Your task to perform on an android device: Open display settings Image 0: 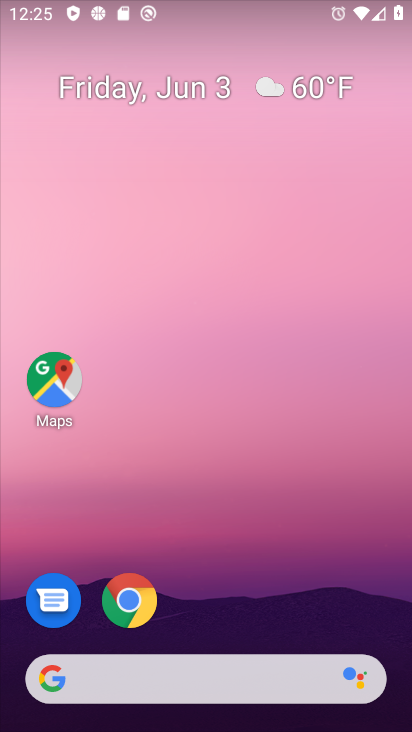
Step 0: drag from (287, 539) to (243, 232)
Your task to perform on an android device: Open display settings Image 1: 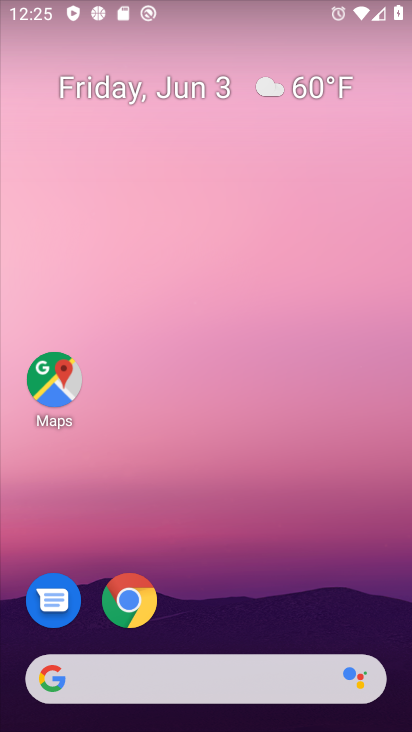
Step 1: drag from (292, 542) to (218, 148)
Your task to perform on an android device: Open display settings Image 2: 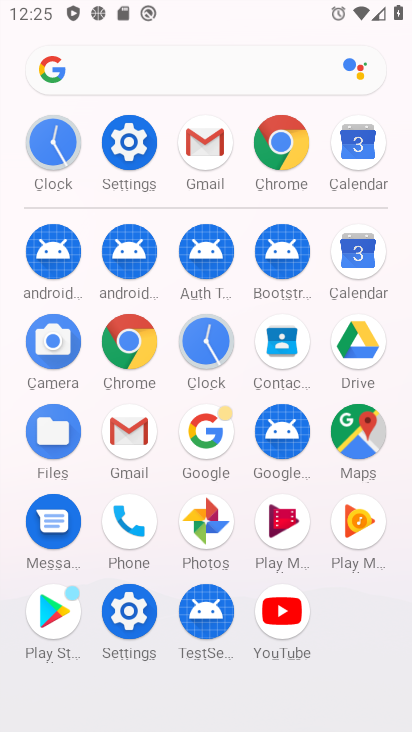
Step 2: click (124, 136)
Your task to perform on an android device: Open display settings Image 3: 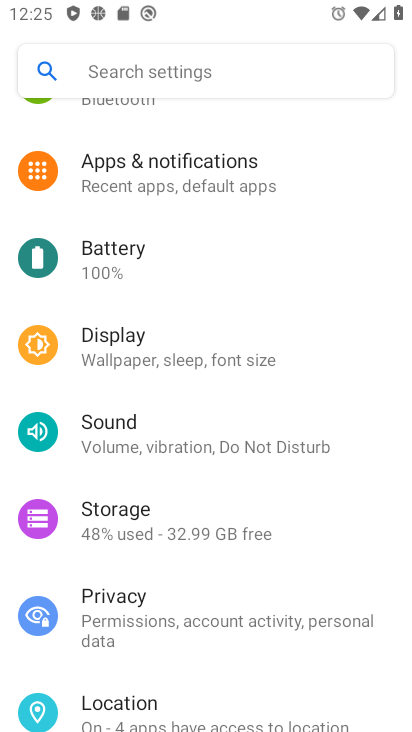
Step 3: drag from (195, 174) to (194, 655)
Your task to perform on an android device: Open display settings Image 4: 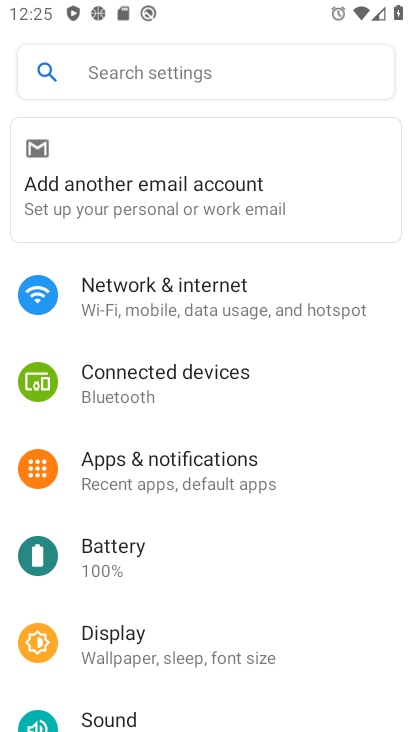
Step 4: click (170, 641)
Your task to perform on an android device: Open display settings Image 5: 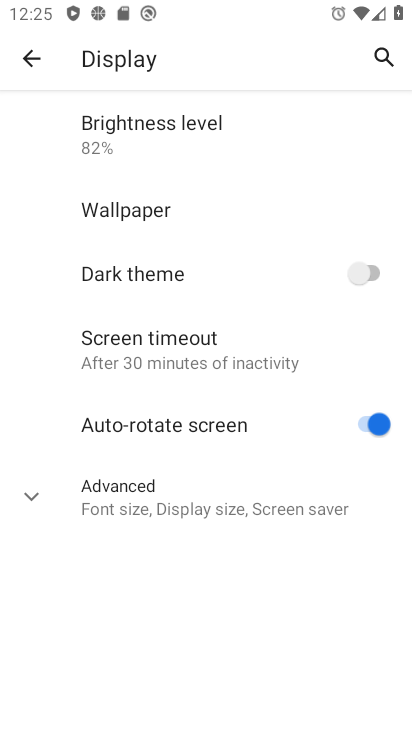
Step 5: task complete